Your task to perform on an android device: Show the shopping cart on amazon.com. Search for "logitech g910" on amazon.com, select the first entry, and add it to the cart. Image 0: 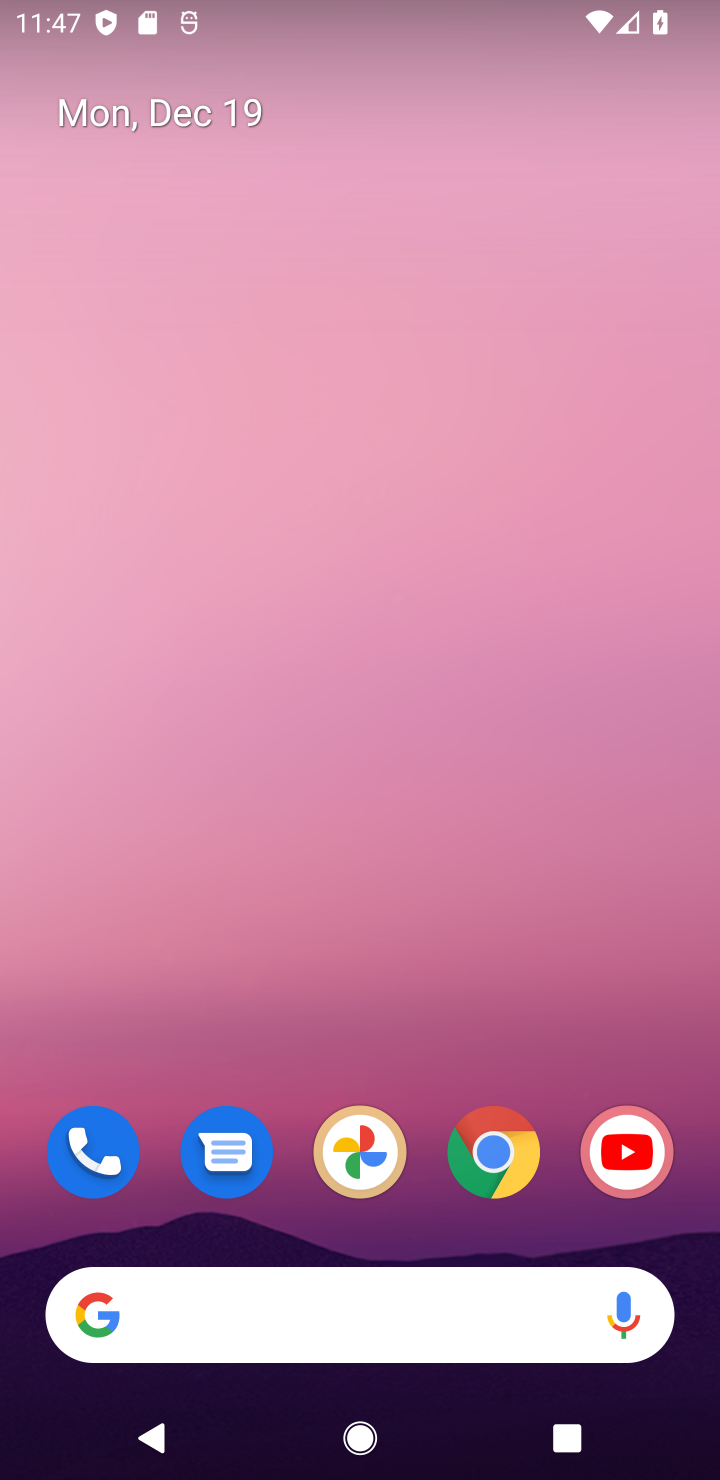
Step 0: click (500, 1142)
Your task to perform on an android device: Show the shopping cart on amazon.com. Search for "logitech g910" on amazon.com, select the first entry, and add it to the cart. Image 1: 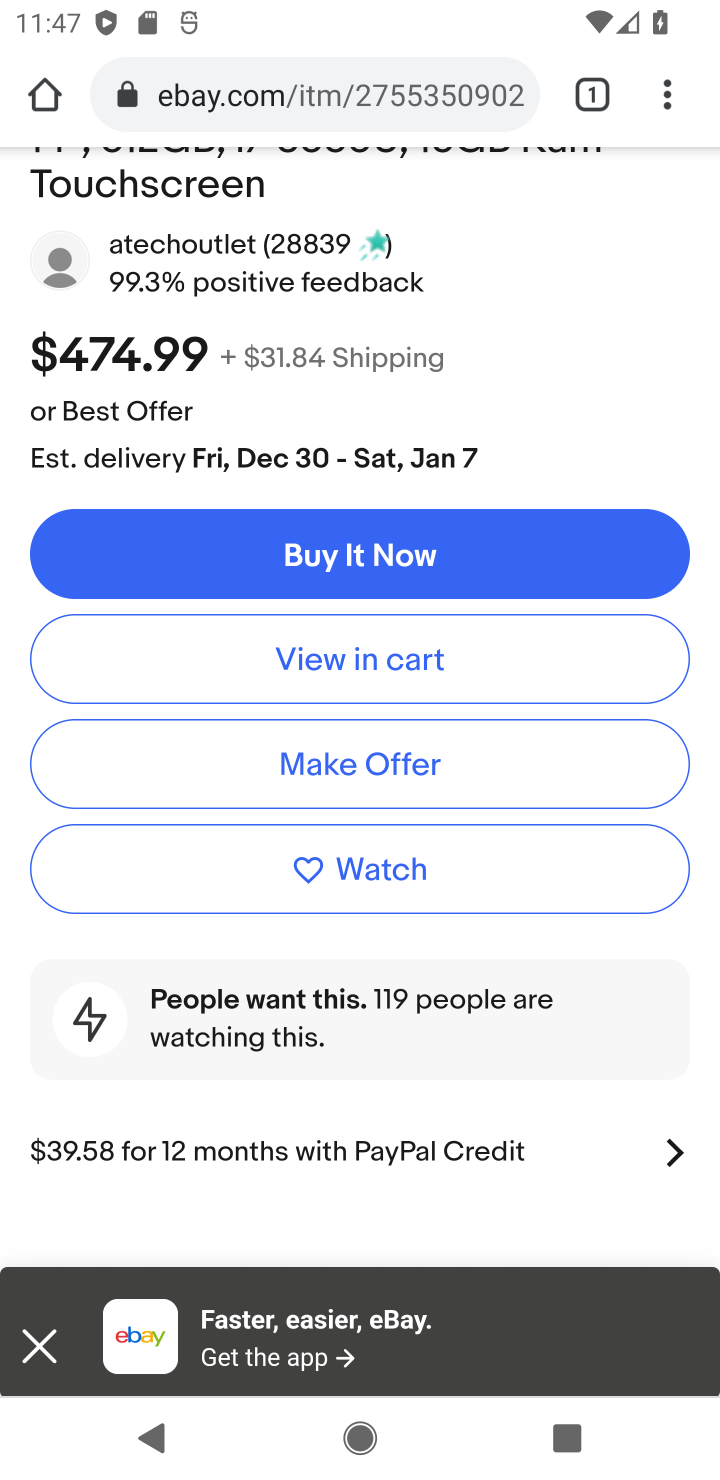
Step 1: click (441, 86)
Your task to perform on an android device: Show the shopping cart on amazon.com. Search for "logitech g910" on amazon.com, select the first entry, and add it to the cart. Image 2: 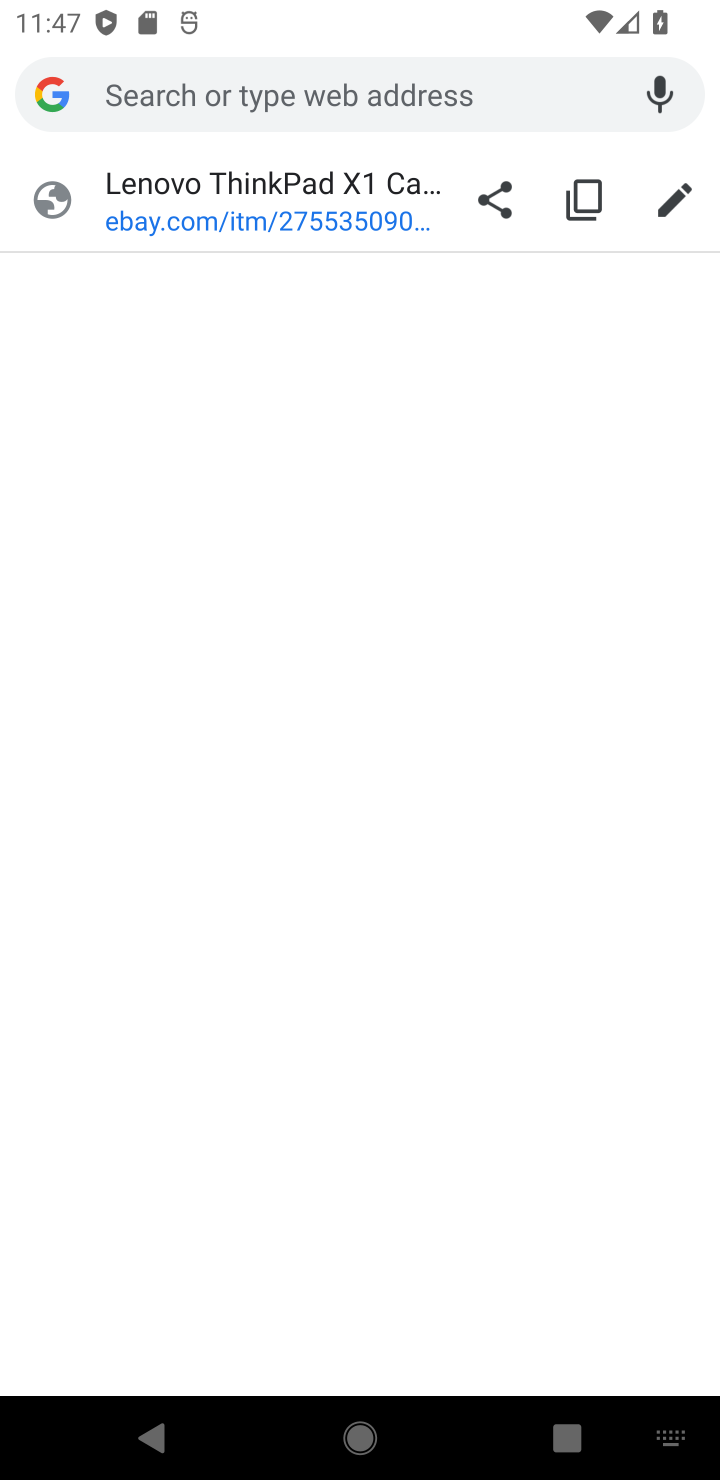
Step 2: type "amazon"
Your task to perform on an android device: Show the shopping cart on amazon.com. Search for "logitech g910" on amazon.com, select the first entry, and add it to the cart. Image 3: 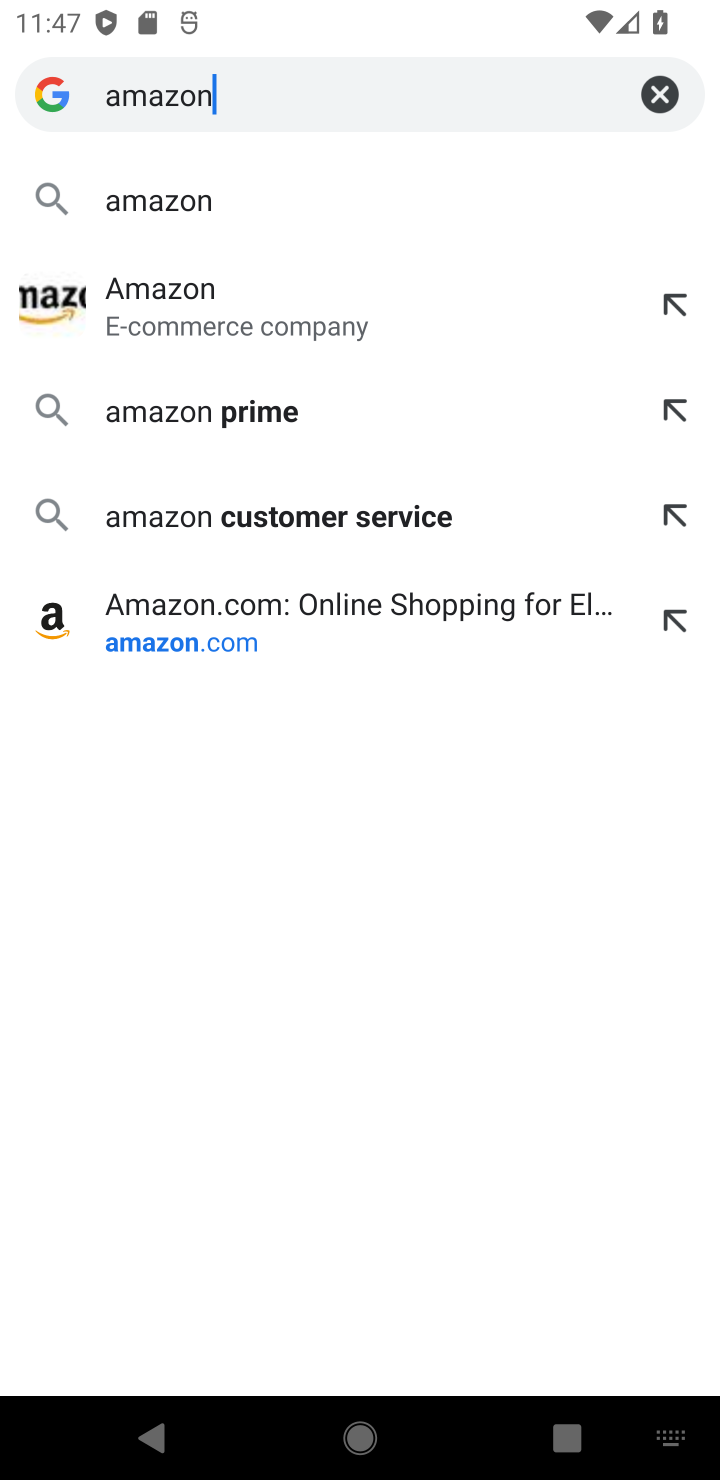
Step 3: click (191, 204)
Your task to perform on an android device: Show the shopping cart on amazon.com. Search for "logitech g910" on amazon.com, select the first entry, and add it to the cart. Image 4: 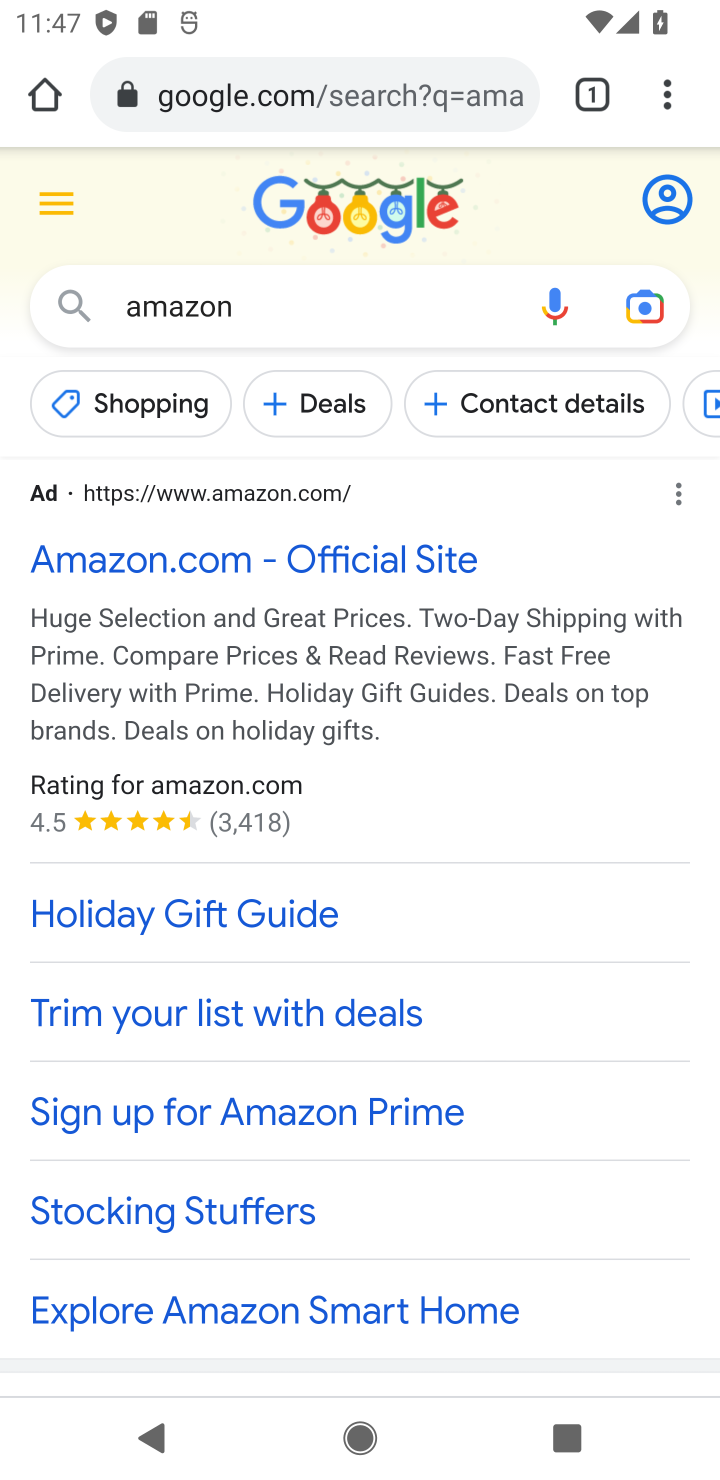
Step 4: click (206, 564)
Your task to perform on an android device: Show the shopping cart on amazon.com. Search for "logitech g910" on amazon.com, select the first entry, and add it to the cart. Image 5: 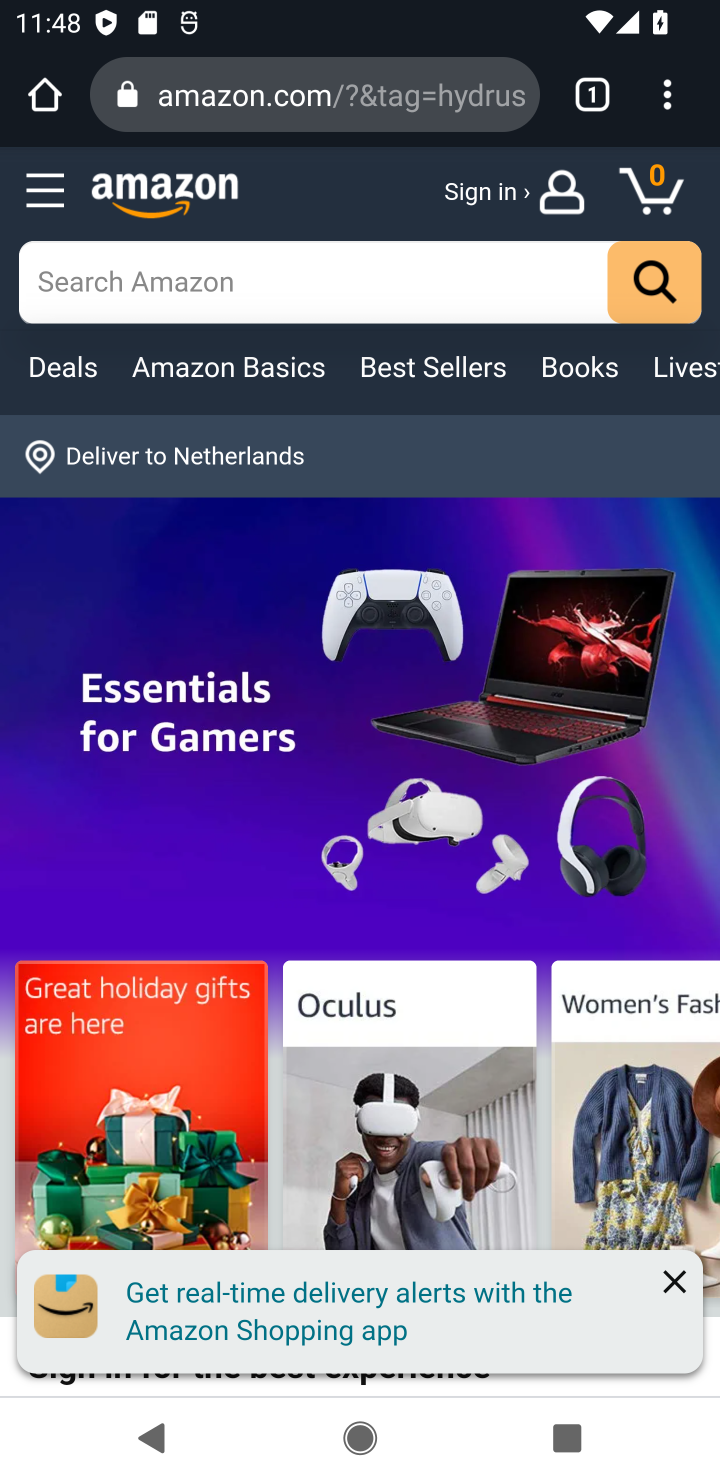
Step 5: click (299, 290)
Your task to perform on an android device: Show the shopping cart on amazon.com. Search for "logitech g910" on amazon.com, select the first entry, and add it to the cart. Image 6: 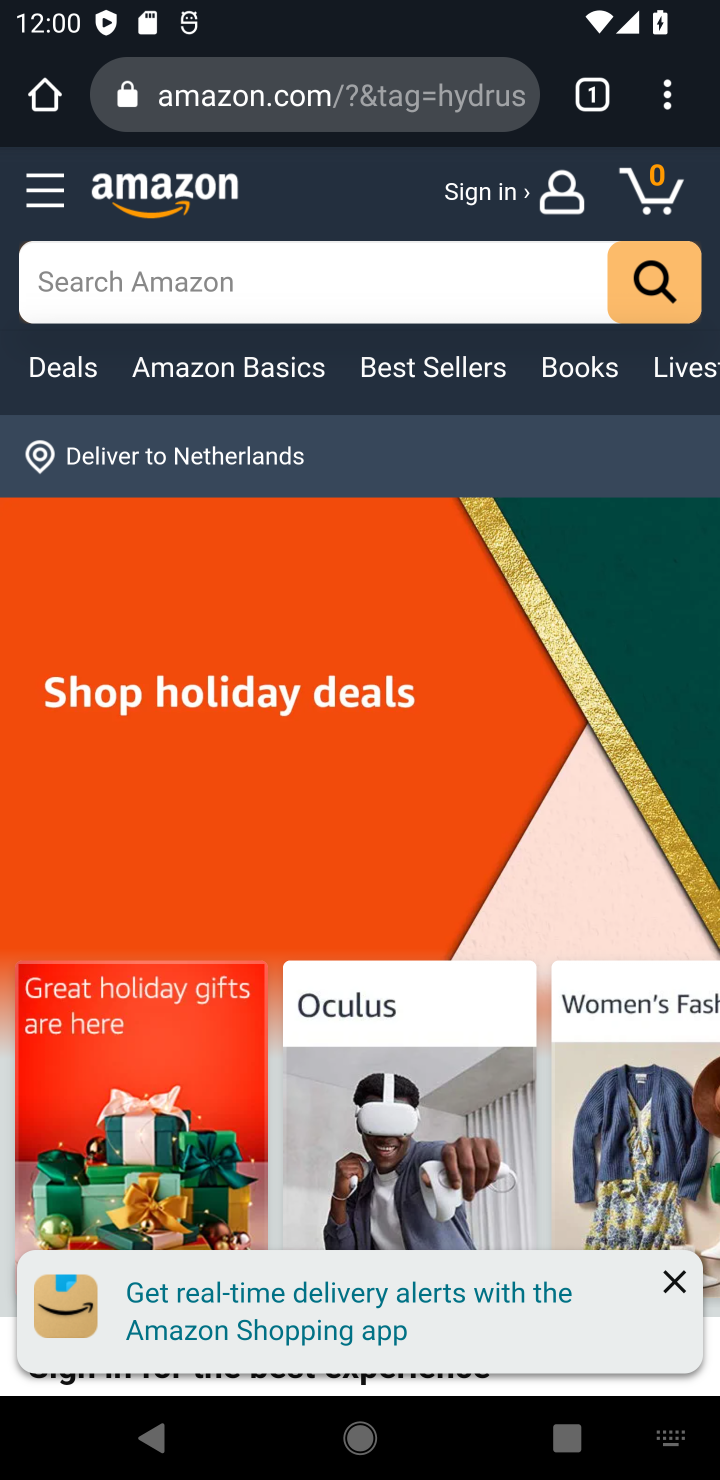
Step 6: task complete